Your task to perform on an android device: install app "Grab" Image 0: 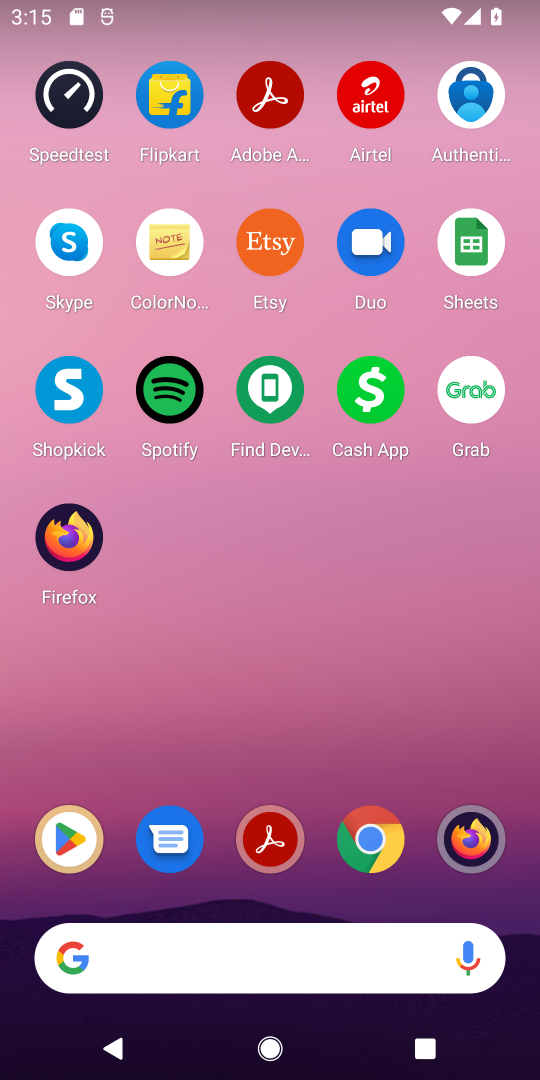
Step 0: click (444, 401)
Your task to perform on an android device: install app "Grab" Image 1: 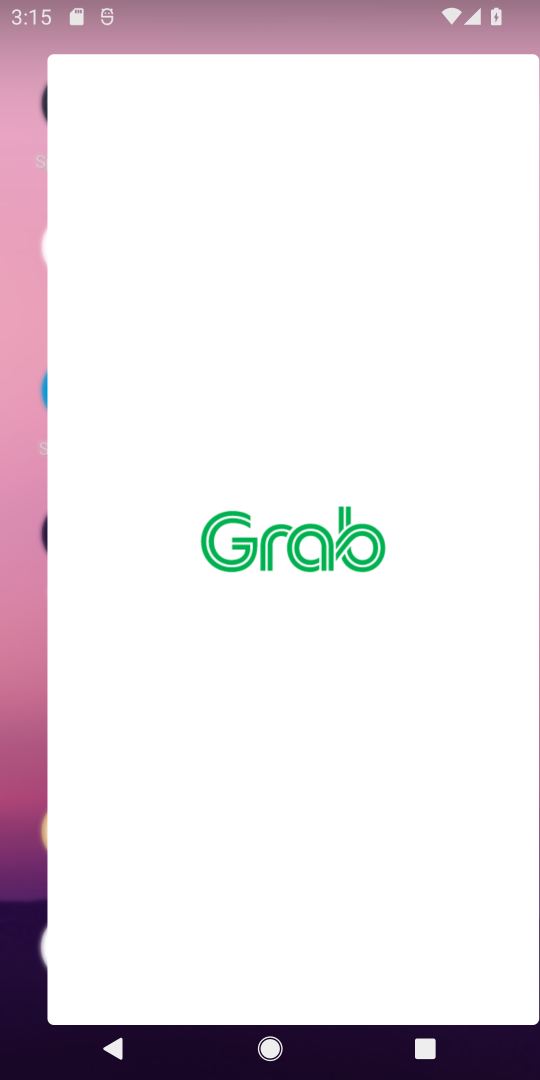
Step 1: task complete